Your task to perform on an android device: Open Google Chrome and open the bookmarks view Image 0: 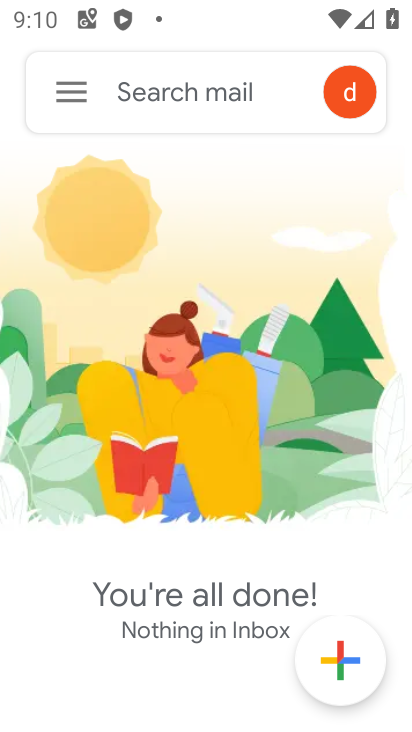
Step 0: press back button
Your task to perform on an android device: Open Google Chrome and open the bookmarks view Image 1: 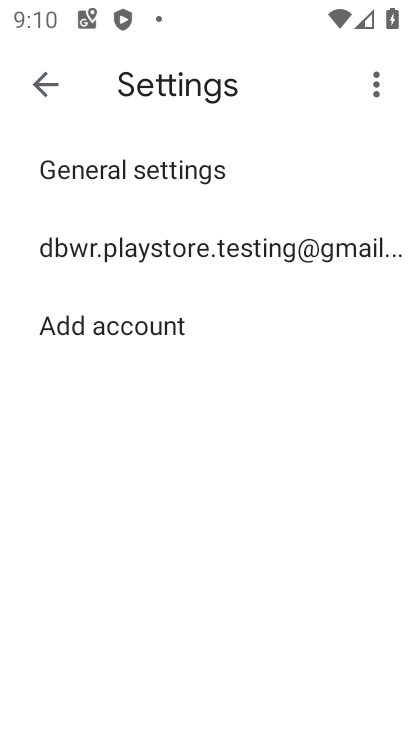
Step 1: press back button
Your task to perform on an android device: Open Google Chrome and open the bookmarks view Image 2: 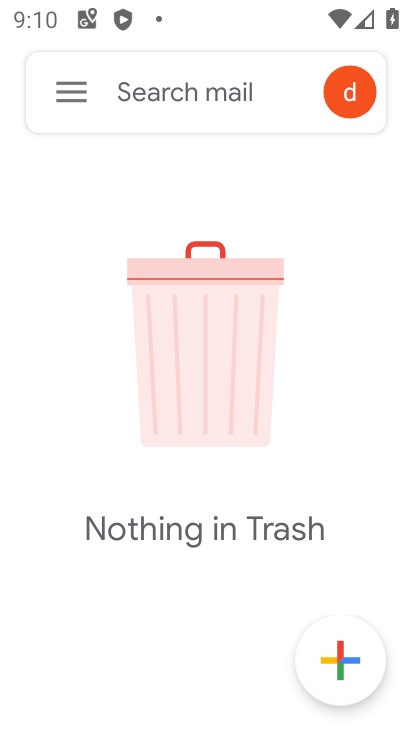
Step 2: press back button
Your task to perform on an android device: Open Google Chrome and open the bookmarks view Image 3: 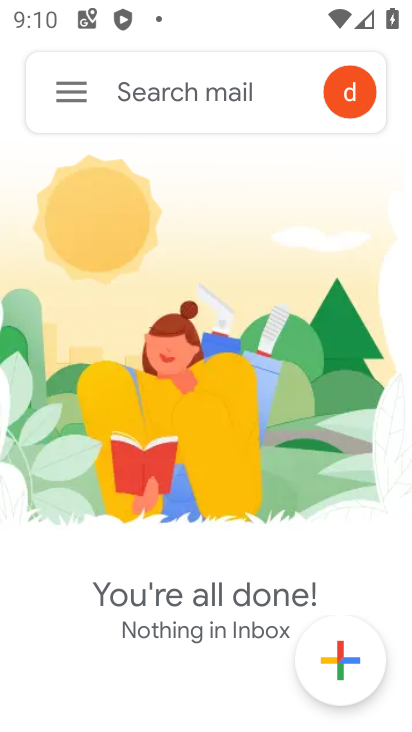
Step 3: press back button
Your task to perform on an android device: Open Google Chrome and open the bookmarks view Image 4: 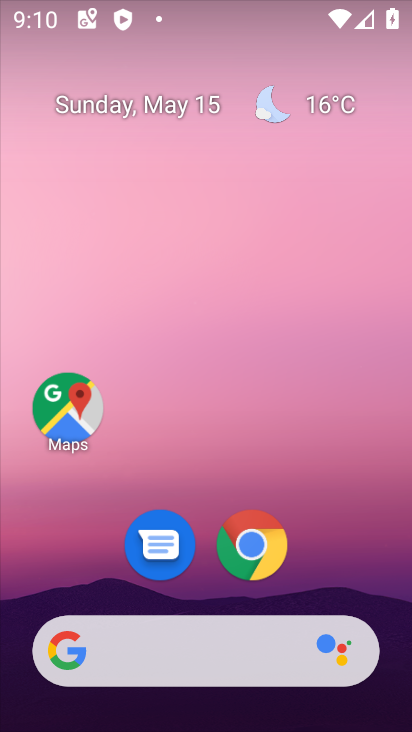
Step 4: click (255, 545)
Your task to perform on an android device: Open Google Chrome and open the bookmarks view Image 5: 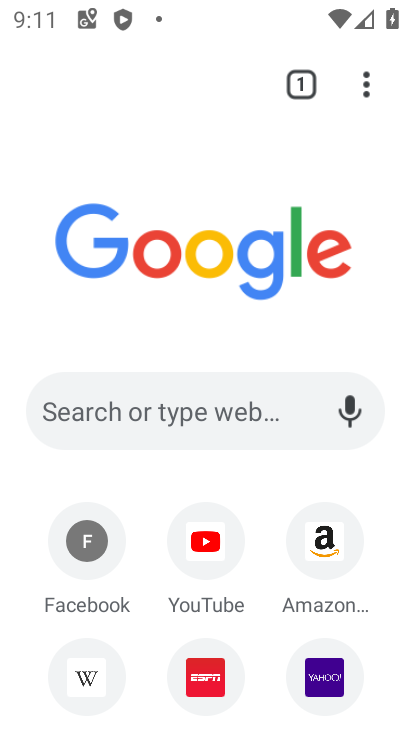
Step 5: click (366, 88)
Your task to perform on an android device: Open Google Chrome and open the bookmarks view Image 6: 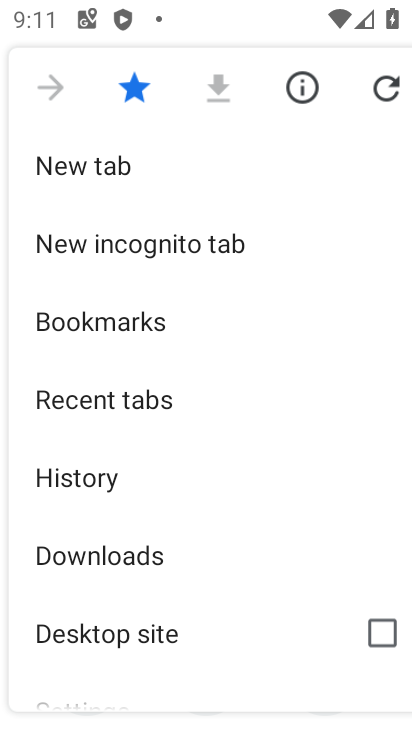
Step 6: click (116, 321)
Your task to perform on an android device: Open Google Chrome and open the bookmarks view Image 7: 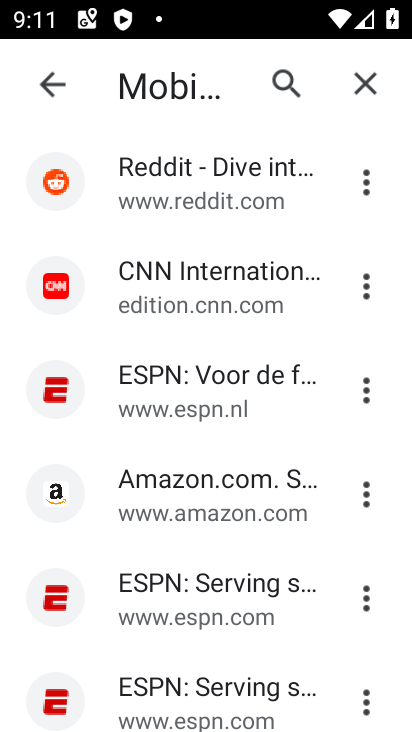
Step 7: task complete